Your task to perform on an android device: toggle data saver in the chrome app Image 0: 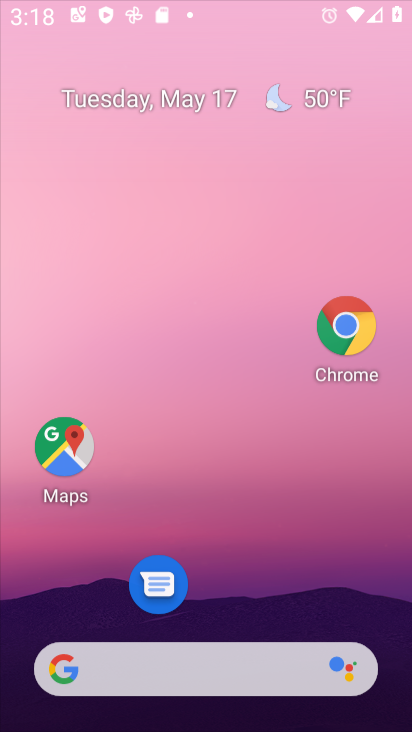
Step 0: click (273, 191)
Your task to perform on an android device: toggle data saver in the chrome app Image 1: 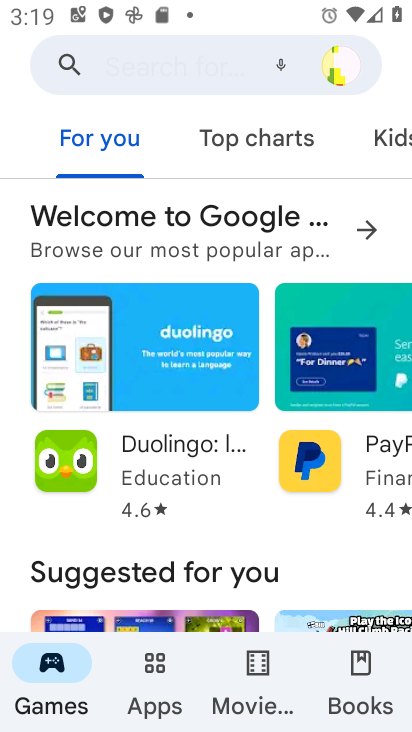
Step 1: press home button
Your task to perform on an android device: toggle data saver in the chrome app Image 2: 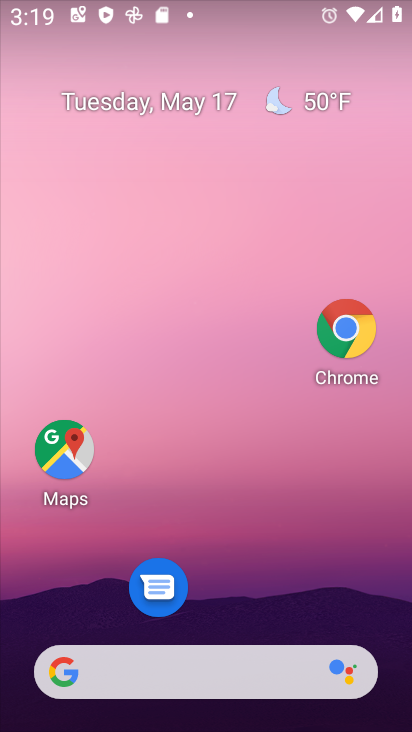
Step 2: click (336, 357)
Your task to perform on an android device: toggle data saver in the chrome app Image 3: 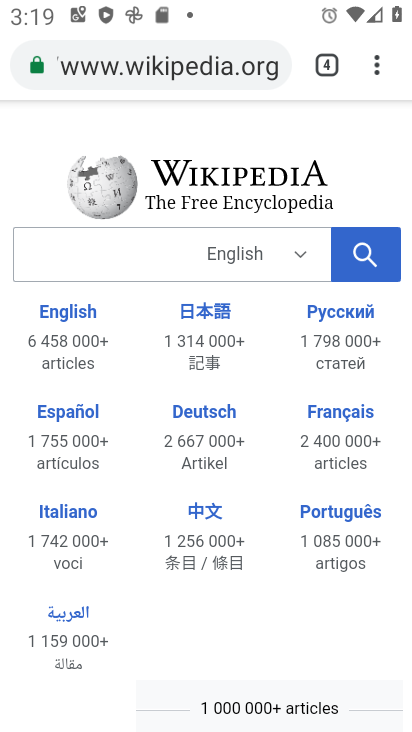
Step 3: click (398, 63)
Your task to perform on an android device: toggle data saver in the chrome app Image 4: 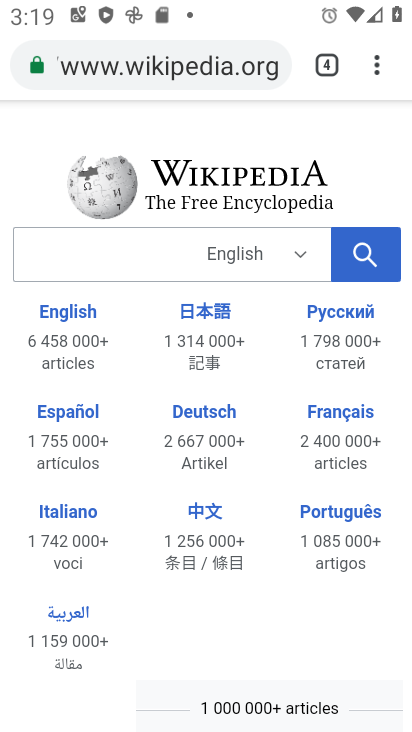
Step 4: click (371, 67)
Your task to perform on an android device: toggle data saver in the chrome app Image 5: 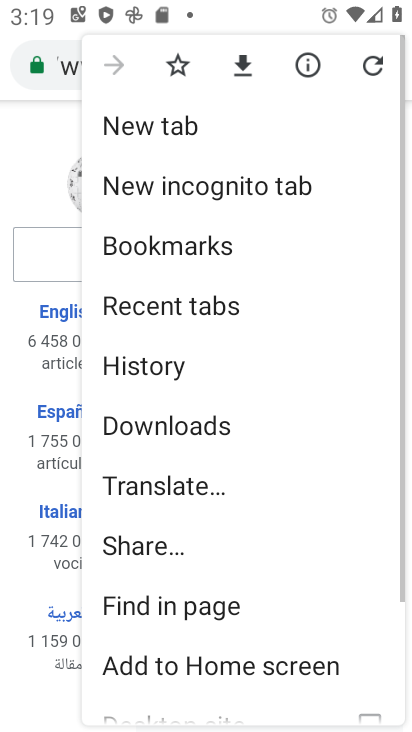
Step 5: drag from (157, 613) to (219, 260)
Your task to perform on an android device: toggle data saver in the chrome app Image 6: 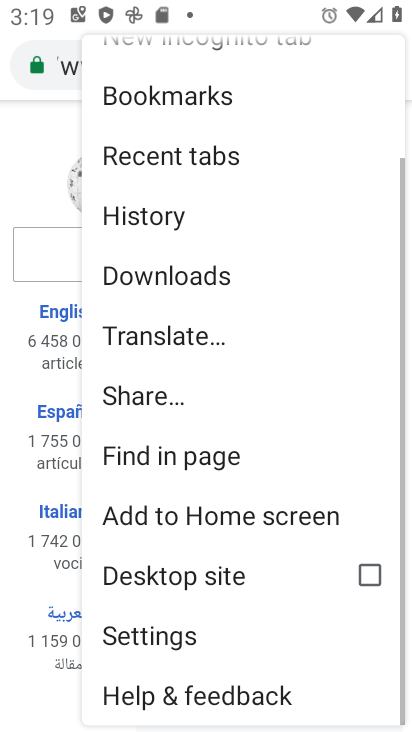
Step 6: click (142, 651)
Your task to perform on an android device: toggle data saver in the chrome app Image 7: 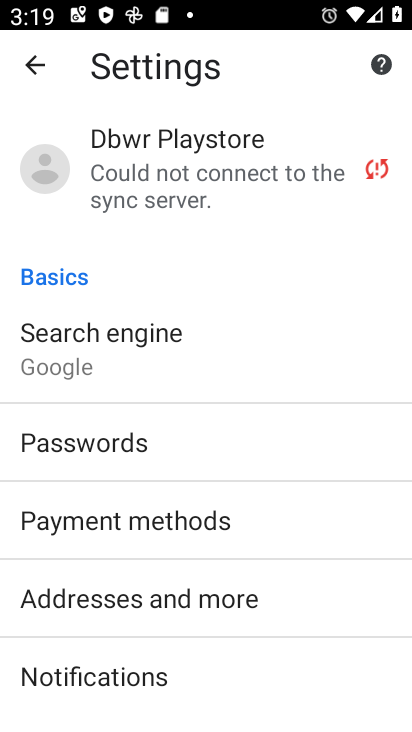
Step 7: drag from (142, 651) to (184, 308)
Your task to perform on an android device: toggle data saver in the chrome app Image 8: 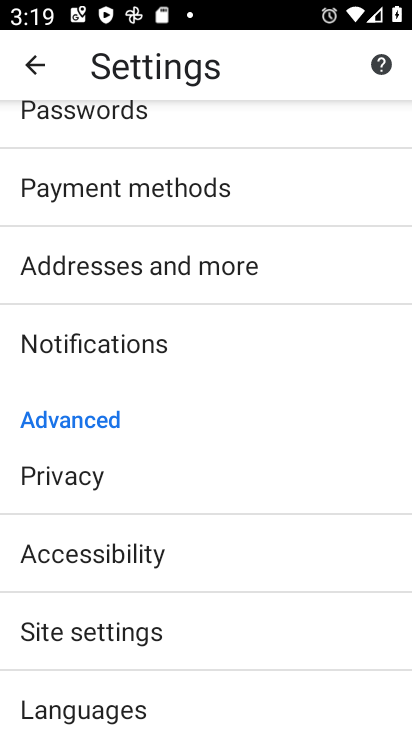
Step 8: drag from (185, 605) to (215, 362)
Your task to perform on an android device: toggle data saver in the chrome app Image 9: 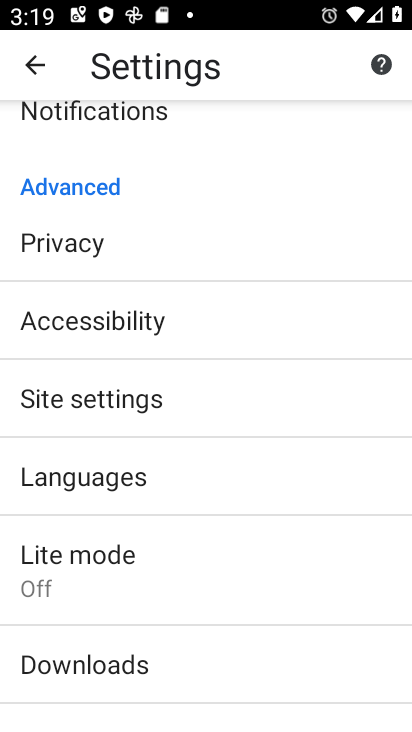
Step 9: click (148, 554)
Your task to perform on an android device: toggle data saver in the chrome app Image 10: 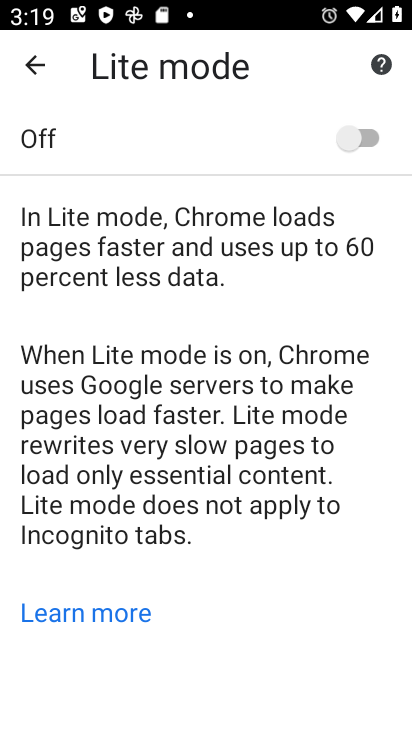
Step 10: click (365, 124)
Your task to perform on an android device: toggle data saver in the chrome app Image 11: 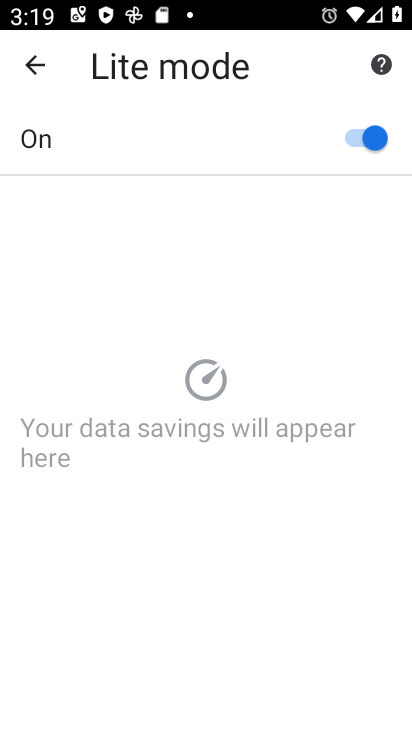
Step 11: task complete